Your task to perform on an android device: turn on the 12-hour format for clock Image 0: 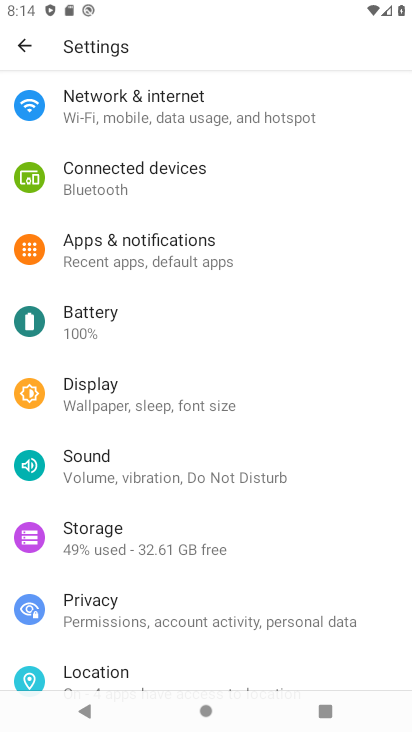
Step 0: drag from (125, 652) to (271, 223)
Your task to perform on an android device: turn on the 12-hour format for clock Image 1: 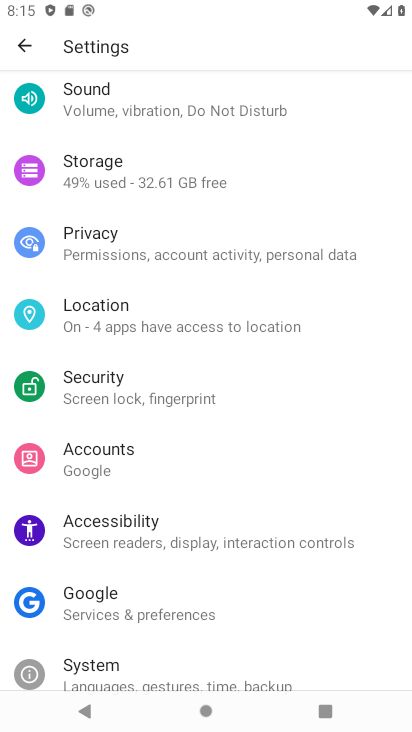
Step 1: drag from (39, 628) to (270, 350)
Your task to perform on an android device: turn on the 12-hour format for clock Image 2: 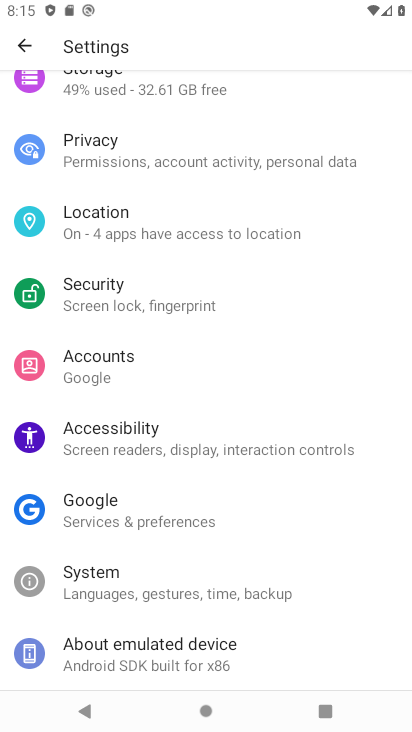
Step 2: drag from (203, 178) to (151, 528)
Your task to perform on an android device: turn on the 12-hour format for clock Image 3: 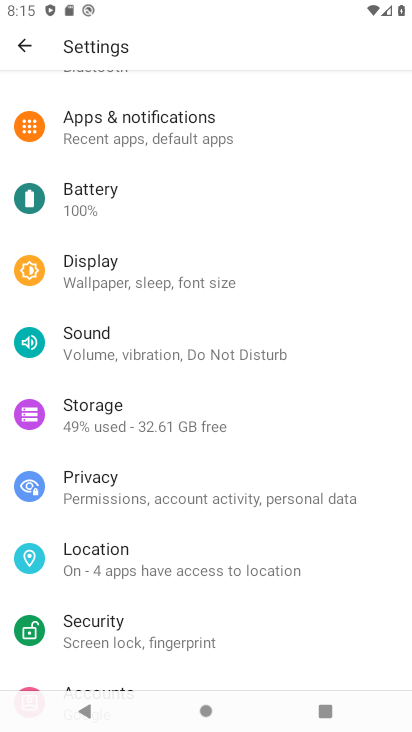
Step 3: drag from (168, 667) to (270, 318)
Your task to perform on an android device: turn on the 12-hour format for clock Image 4: 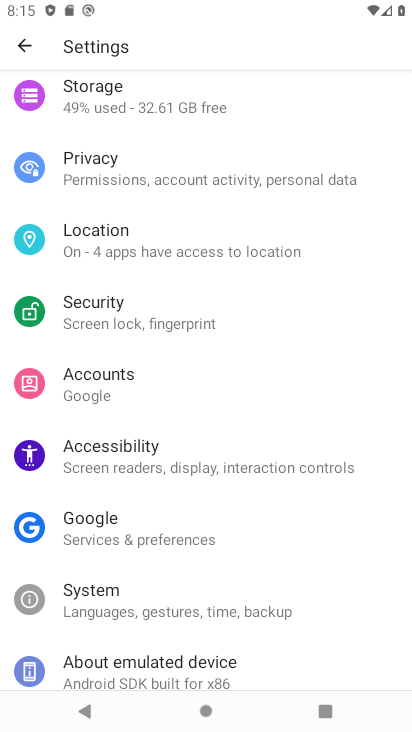
Step 4: drag from (183, 693) to (331, 241)
Your task to perform on an android device: turn on the 12-hour format for clock Image 5: 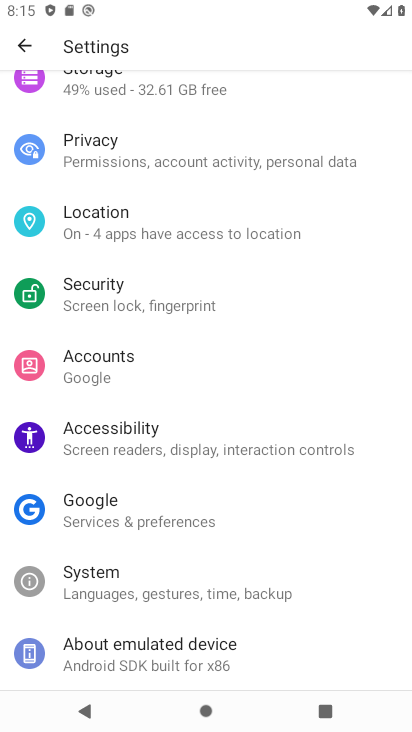
Step 5: press home button
Your task to perform on an android device: turn on the 12-hour format for clock Image 6: 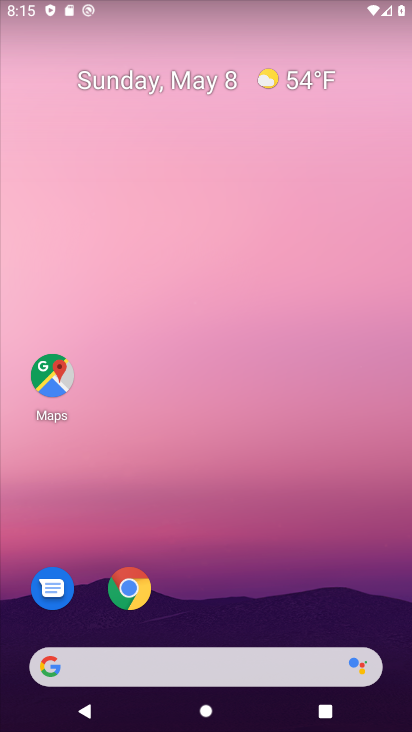
Step 6: drag from (21, 632) to (346, 215)
Your task to perform on an android device: turn on the 12-hour format for clock Image 7: 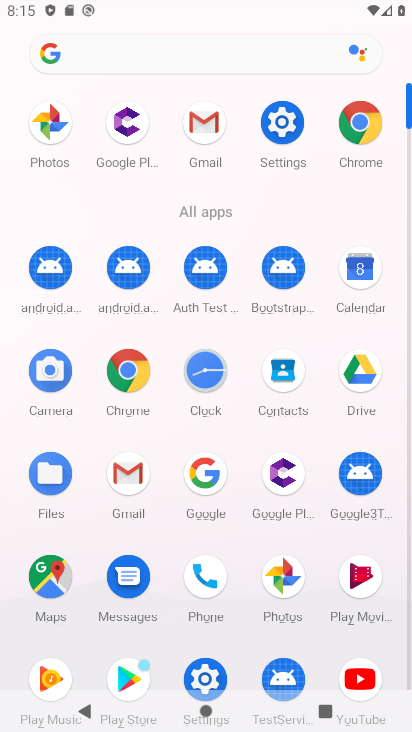
Step 7: click (219, 366)
Your task to perform on an android device: turn on the 12-hour format for clock Image 8: 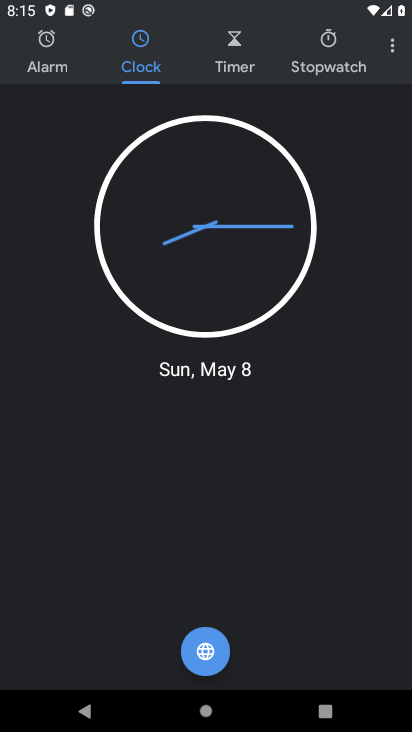
Step 8: click (391, 38)
Your task to perform on an android device: turn on the 12-hour format for clock Image 9: 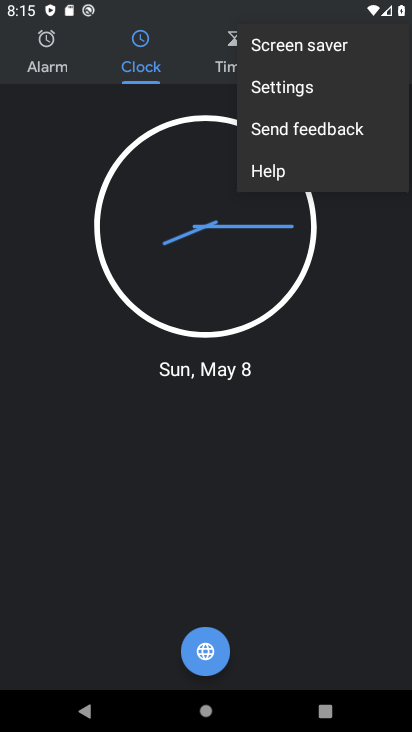
Step 9: click (310, 93)
Your task to perform on an android device: turn on the 12-hour format for clock Image 10: 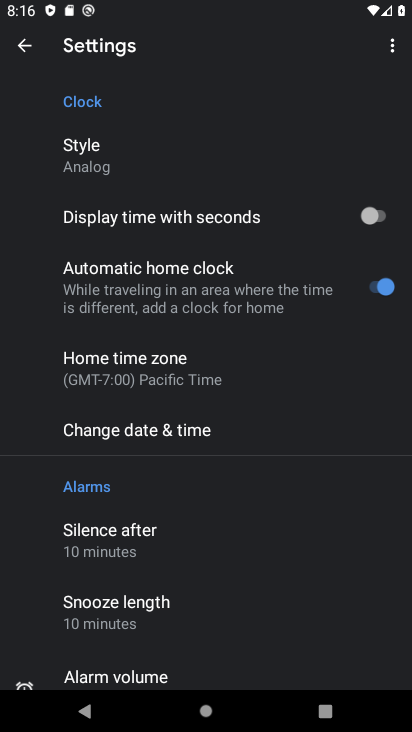
Step 10: drag from (125, 465) to (269, 94)
Your task to perform on an android device: turn on the 12-hour format for clock Image 11: 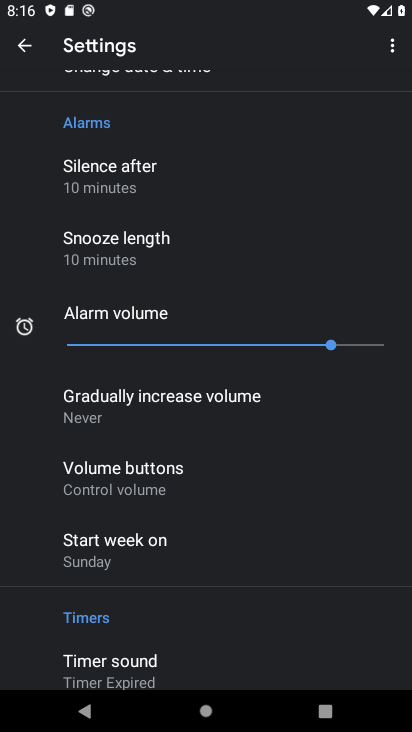
Step 11: drag from (132, 523) to (261, 192)
Your task to perform on an android device: turn on the 12-hour format for clock Image 12: 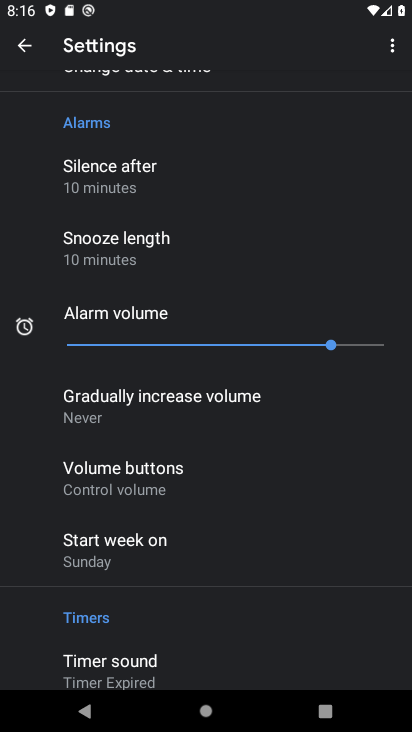
Step 12: drag from (145, 600) to (289, 227)
Your task to perform on an android device: turn on the 12-hour format for clock Image 13: 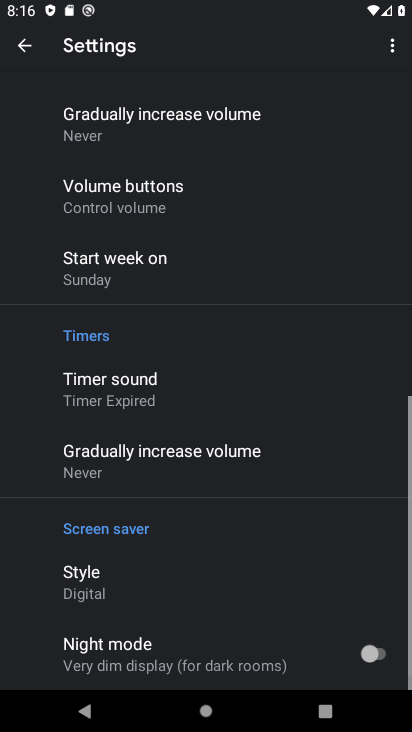
Step 13: drag from (64, 611) to (294, 85)
Your task to perform on an android device: turn on the 12-hour format for clock Image 14: 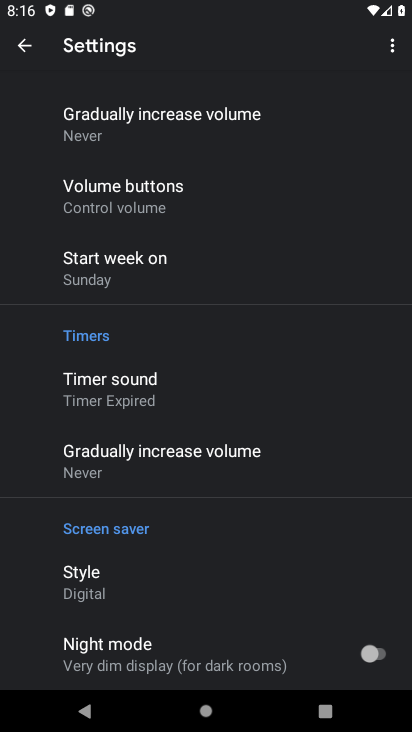
Step 14: drag from (194, 530) to (354, 130)
Your task to perform on an android device: turn on the 12-hour format for clock Image 15: 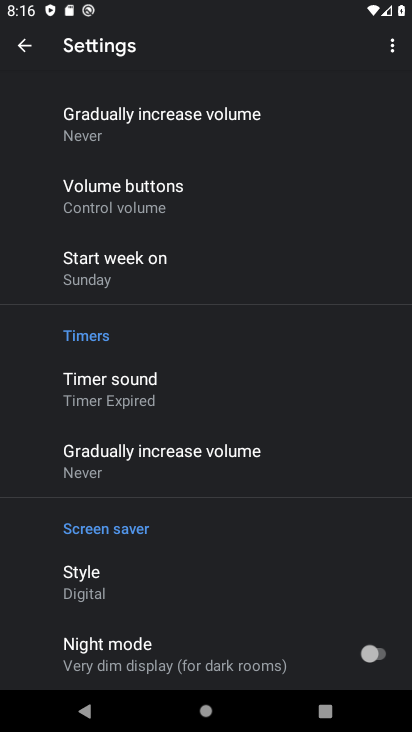
Step 15: drag from (220, 154) to (155, 595)
Your task to perform on an android device: turn on the 12-hour format for clock Image 16: 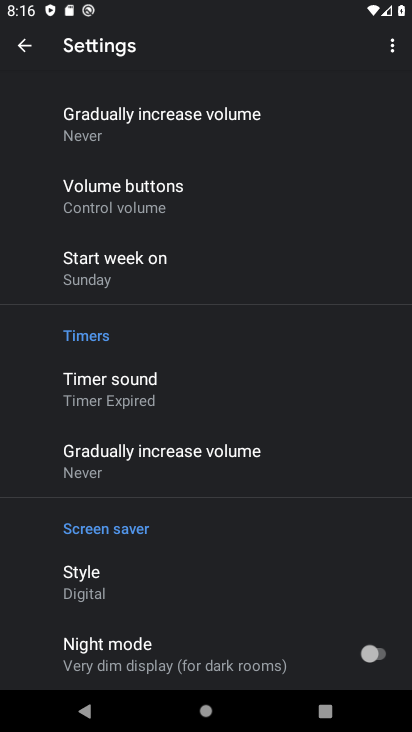
Step 16: drag from (214, 135) to (213, 650)
Your task to perform on an android device: turn on the 12-hour format for clock Image 17: 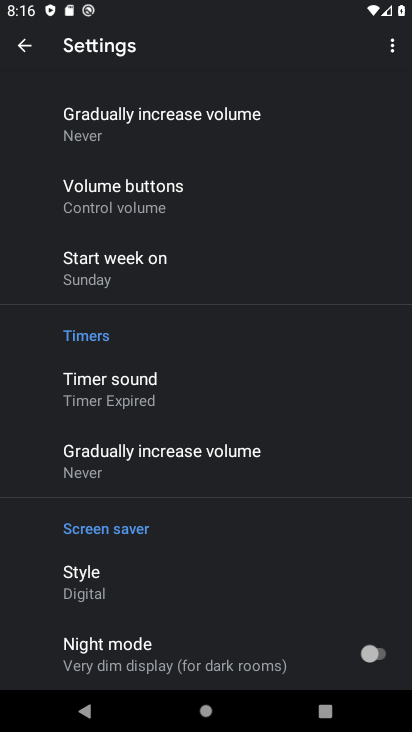
Step 17: drag from (197, 219) to (140, 731)
Your task to perform on an android device: turn on the 12-hour format for clock Image 18: 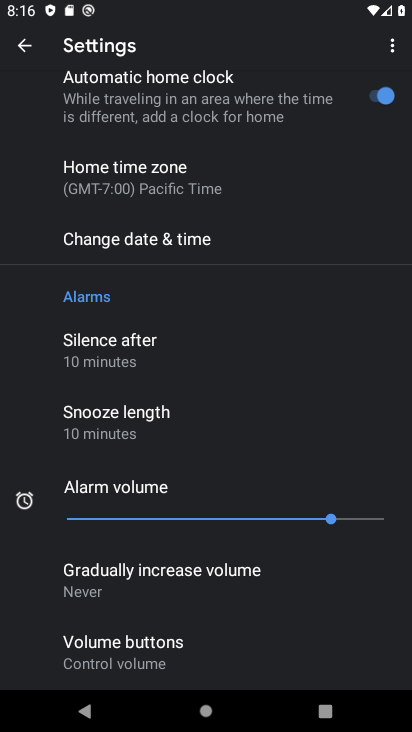
Step 18: click (149, 238)
Your task to perform on an android device: turn on the 12-hour format for clock Image 19: 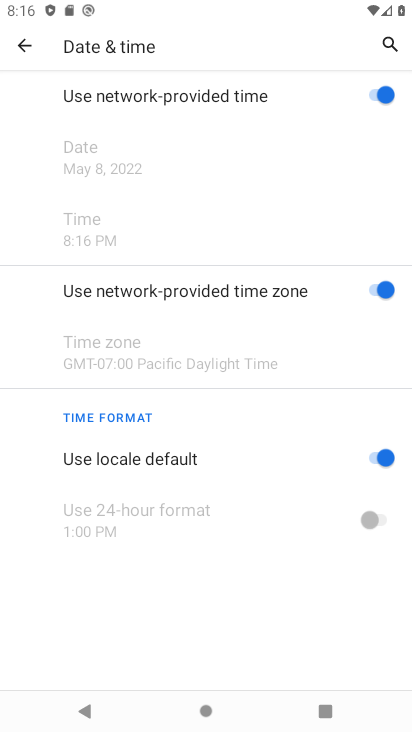
Step 19: task complete